Your task to perform on an android device: Open Amazon Image 0: 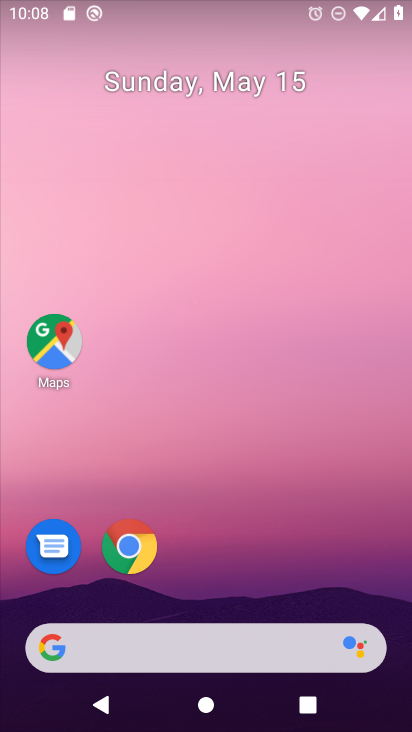
Step 0: click (227, 643)
Your task to perform on an android device: Open Amazon Image 1: 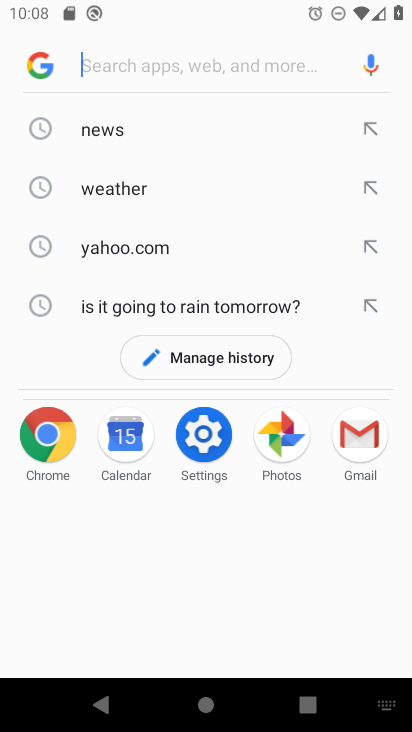
Step 1: type "Amazon"
Your task to perform on an android device: Open Amazon Image 2: 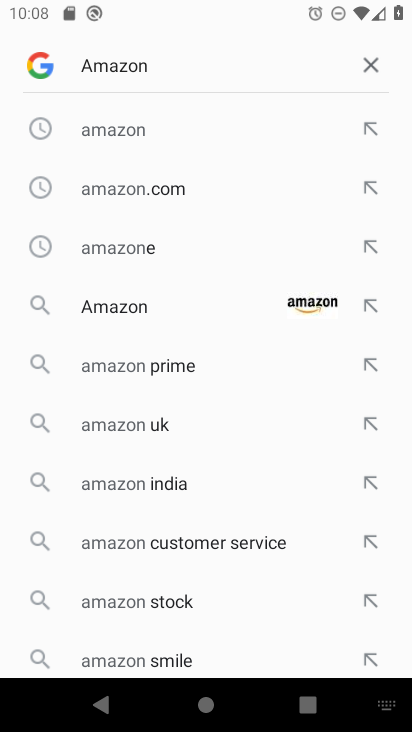
Step 2: click (105, 300)
Your task to perform on an android device: Open Amazon Image 3: 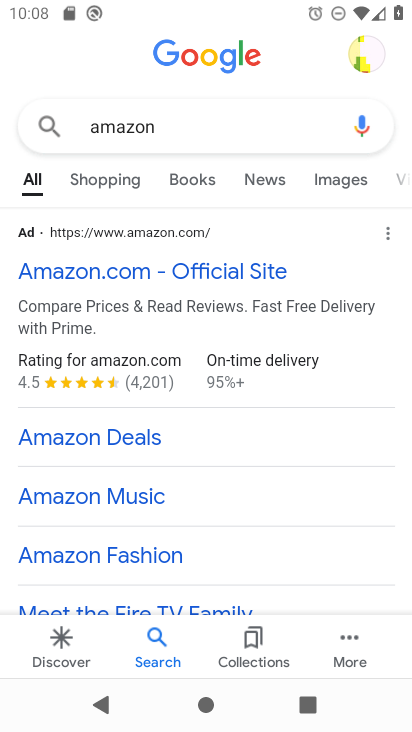
Step 3: click (80, 260)
Your task to perform on an android device: Open Amazon Image 4: 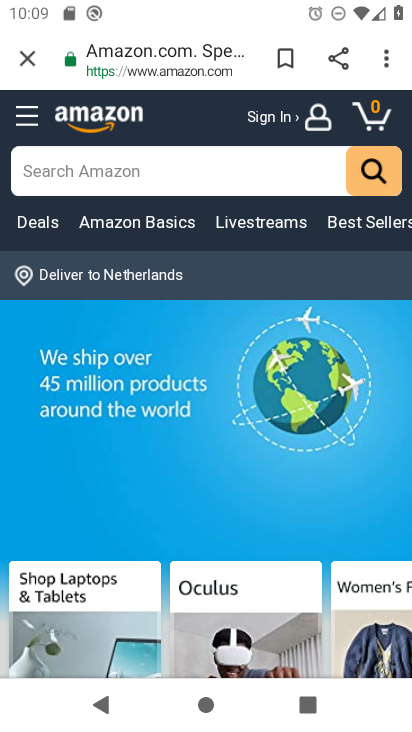
Step 4: task complete